Your task to perform on an android device: change the clock display to show seconds Image 0: 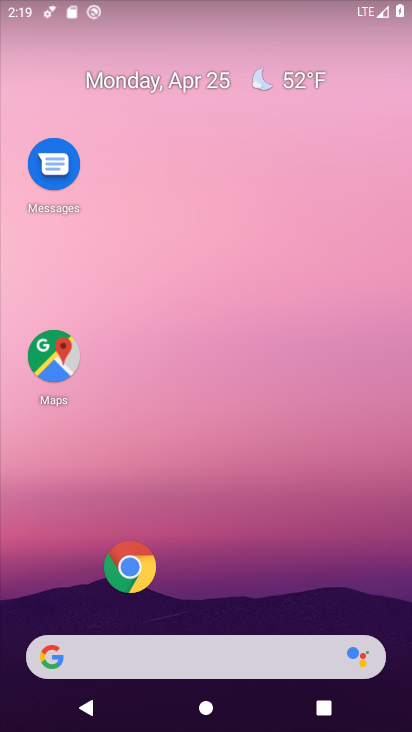
Step 0: click (292, 183)
Your task to perform on an android device: change the clock display to show seconds Image 1: 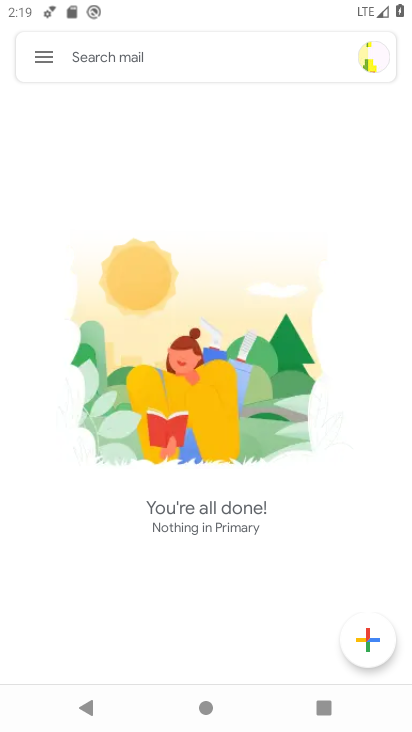
Step 1: press home button
Your task to perform on an android device: change the clock display to show seconds Image 2: 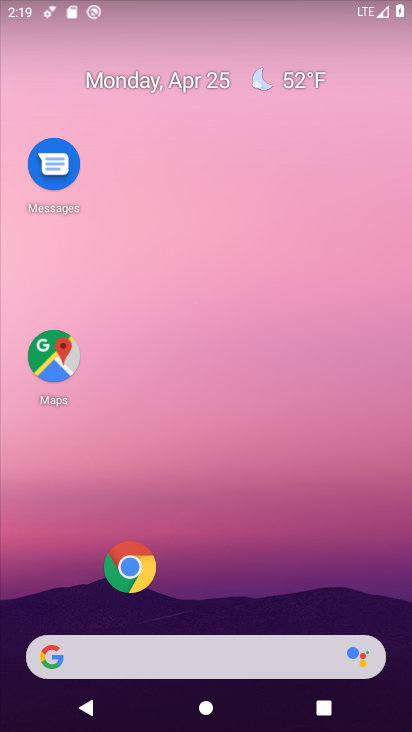
Step 2: drag from (277, 615) to (299, 377)
Your task to perform on an android device: change the clock display to show seconds Image 3: 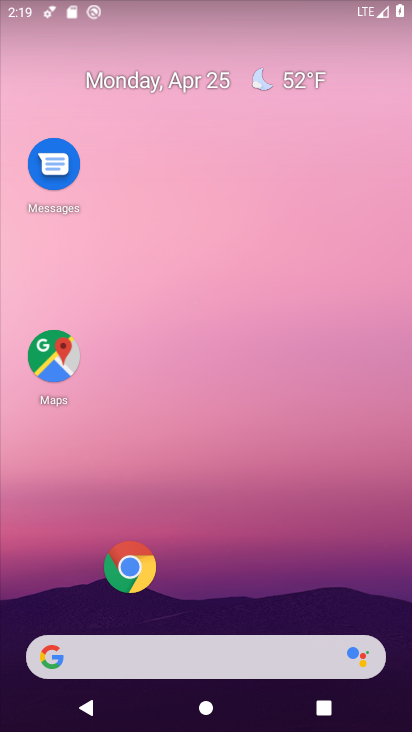
Step 3: drag from (249, 579) to (197, 206)
Your task to perform on an android device: change the clock display to show seconds Image 4: 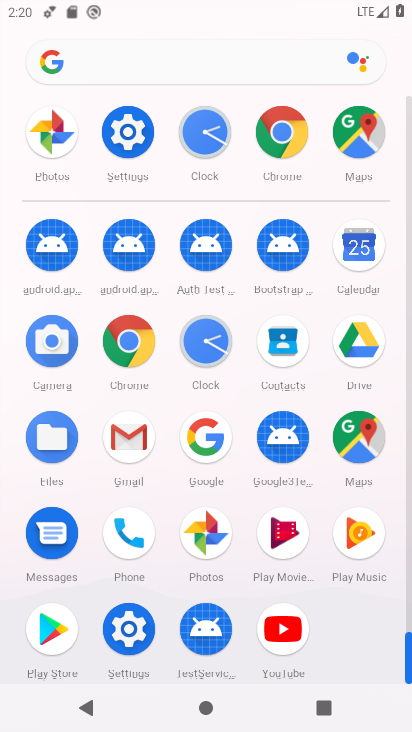
Step 4: click (217, 361)
Your task to perform on an android device: change the clock display to show seconds Image 5: 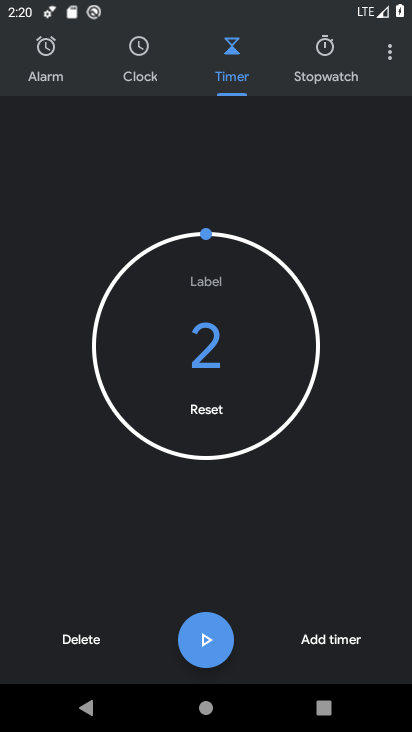
Step 5: click (384, 61)
Your task to perform on an android device: change the clock display to show seconds Image 6: 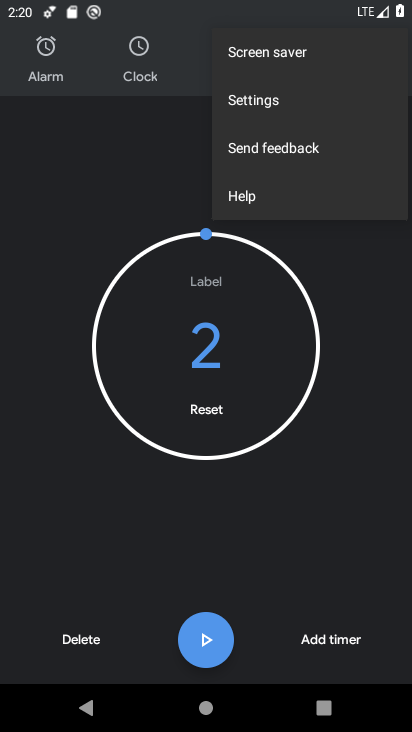
Step 6: click (276, 97)
Your task to perform on an android device: change the clock display to show seconds Image 7: 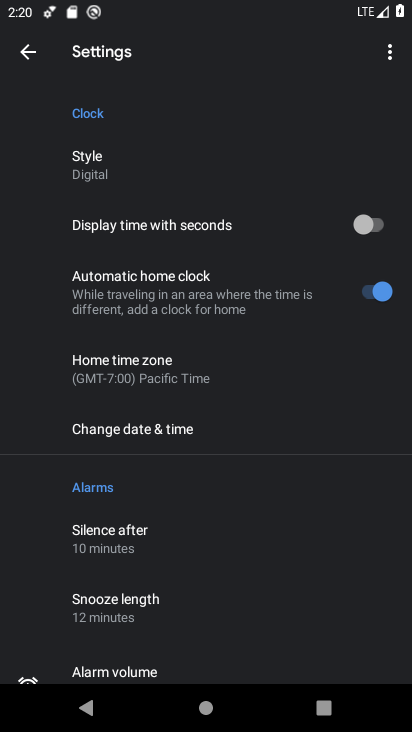
Step 7: click (154, 180)
Your task to perform on an android device: change the clock display to show seconds Image 8: 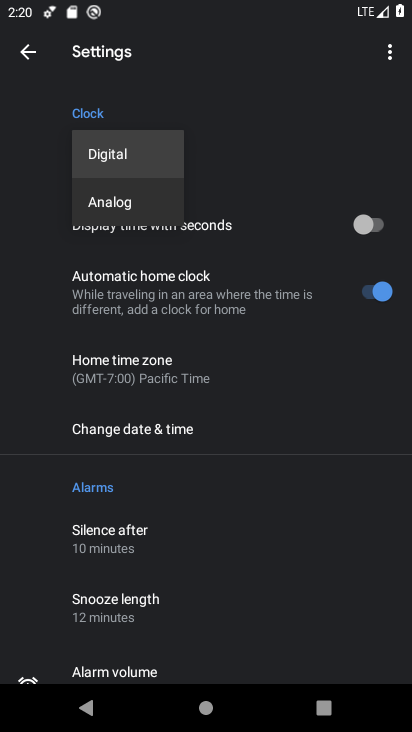
Step 8: click (350, 233)
Your task to perform on an android device: change the clock display to show seconds Image 9: 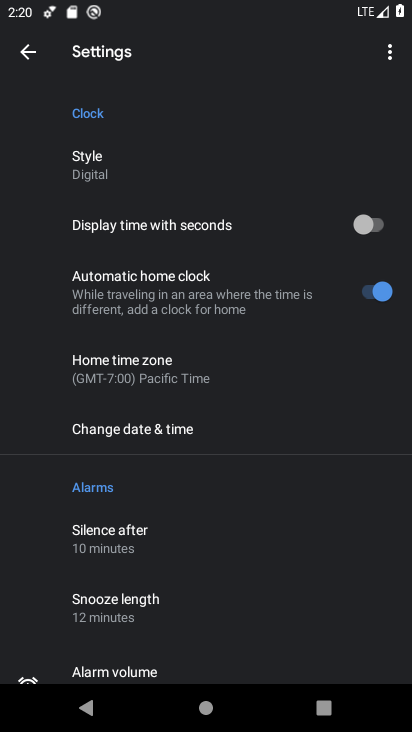
Step 9: click (350, 233)
Your task to perform on an android device: change the clock display to show seconds Image 10: 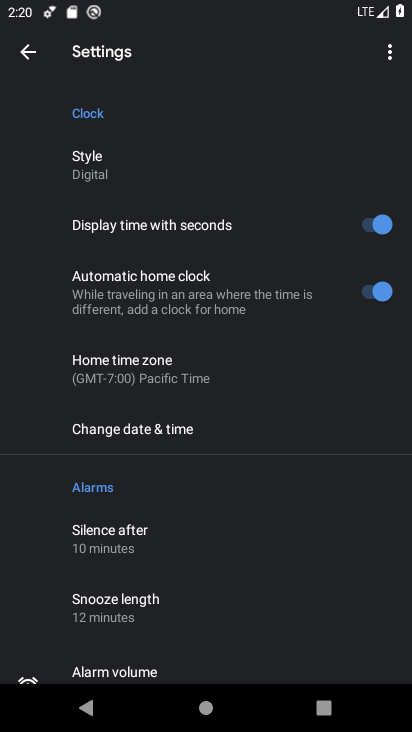
Step 10: task complete